Your task to perform on an android device: find snoozed emails in the gmail app Image 0: 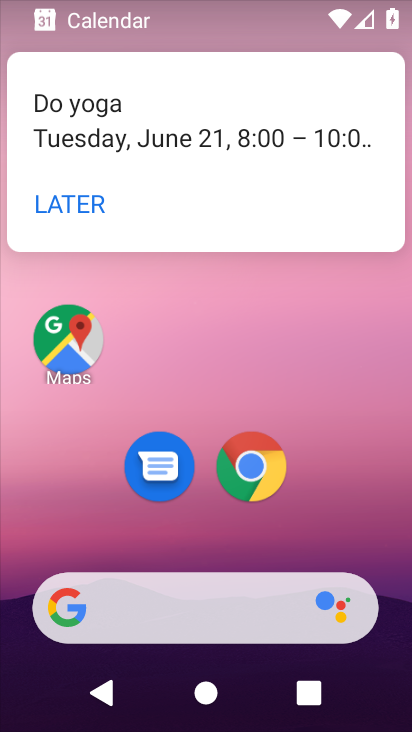
Step 0: drag from (364, 520) to (340, 56)
Your task to perform on an android device: find snoozed emails in the gmail app Image 1: 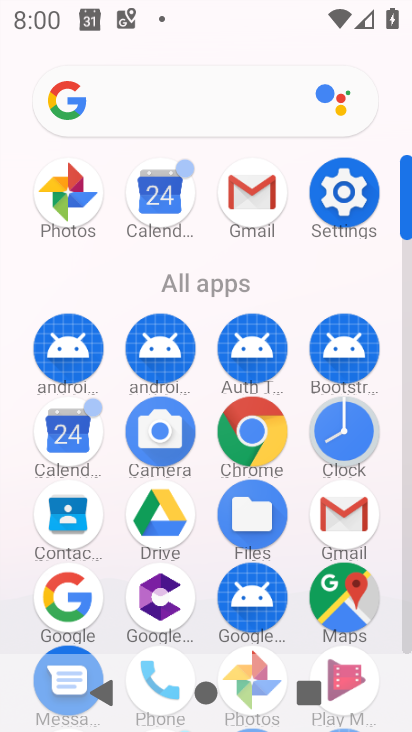
Step 1: click (230, 205)
Your task to perform on an android device: find snoozed emails in the gmail app Image 2: 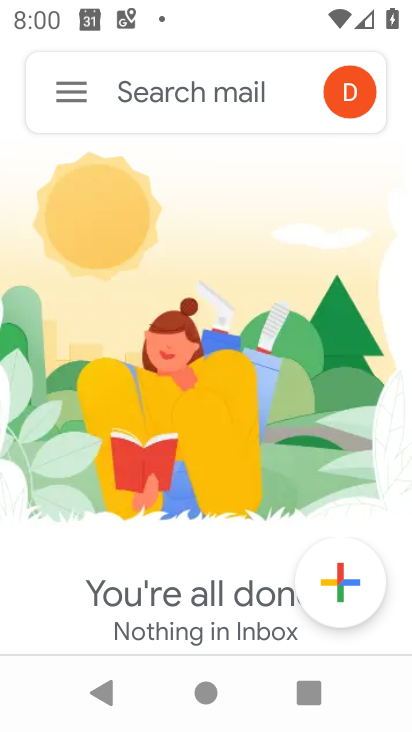
Step 2: click (58, 79)
Your task to perform on an android device: find snoozed emails in the gmail app Image 3: 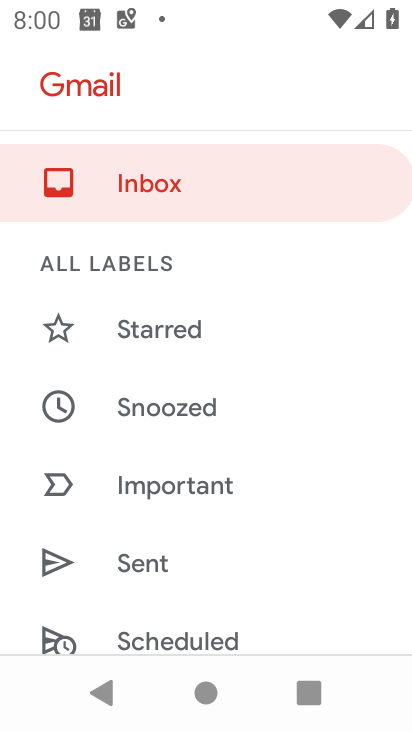
Step 3: drag from (162, 516) to (164, 443)
Your task to perform on an android device: find snoozed emails in the gmail app Image 4: 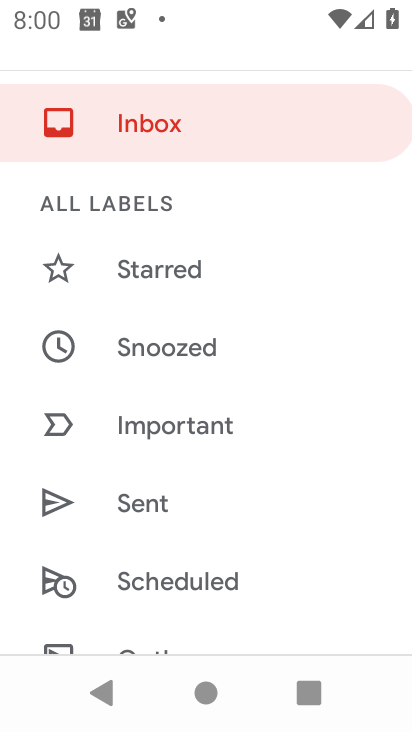
Step 4: click (153, 354)
Your task to perform on an android device: find snoozed emails in the gmail app Image 5: 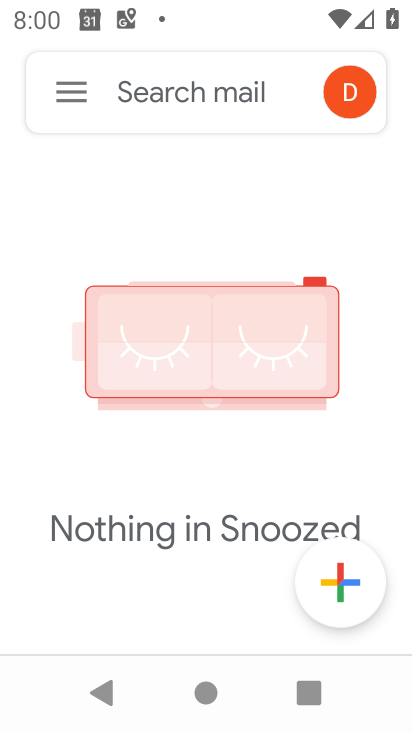
Step 5: task complete